Your task to perform on an android device: check data usage Image 0: 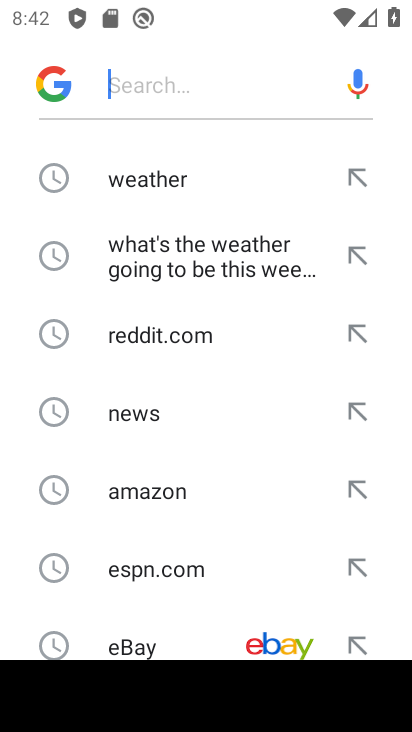
Step 0: press back button
Your task to perform on an android device: check data usage Image 1: 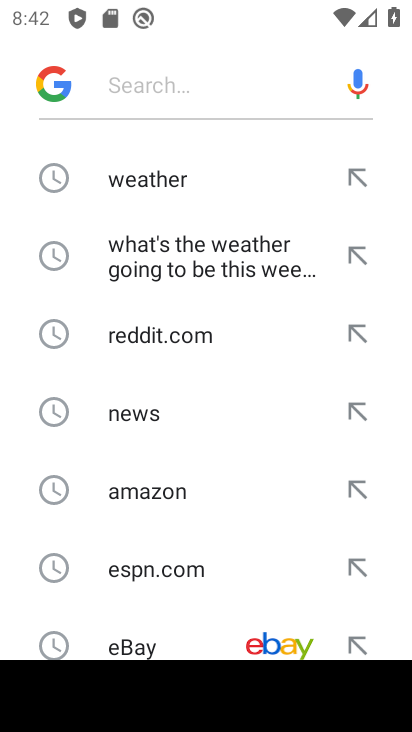
Step 1: press back button
Your task to perform on an android device: check data usage Image 2: 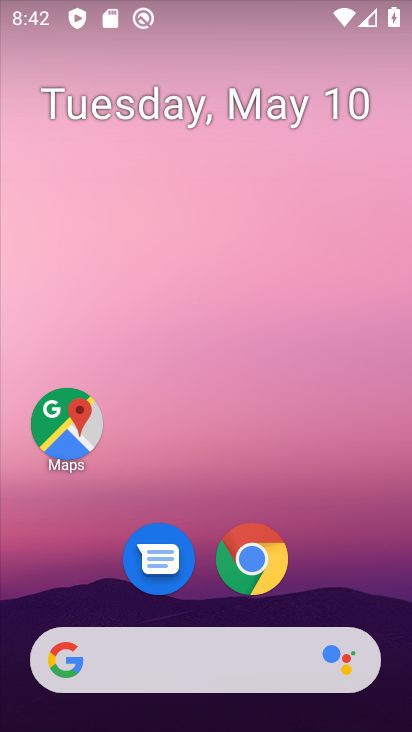
Step 2: drag from (370, 580) to (76, 3)
Your task to perform on an android device: check data usage Image 3: 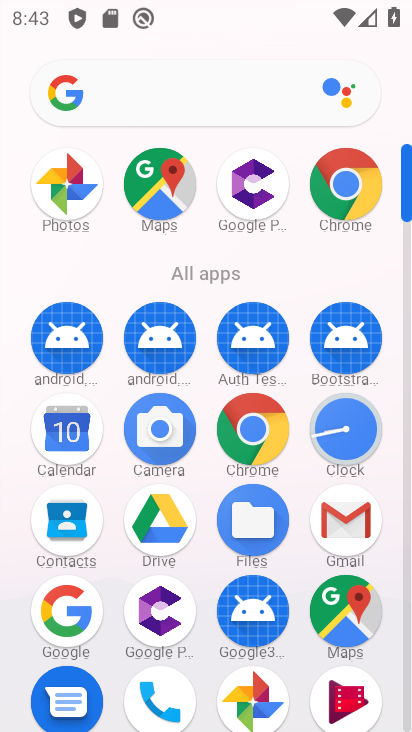
Step 3: click (348, 185)
Your task to perform on an android device: check data usage Image 4: 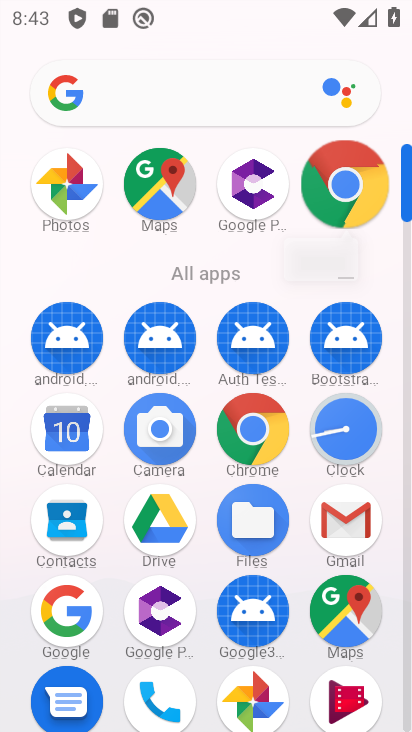
Step 4: click (348, 185)
Your task to perform on an android device: check data usage Image 5: 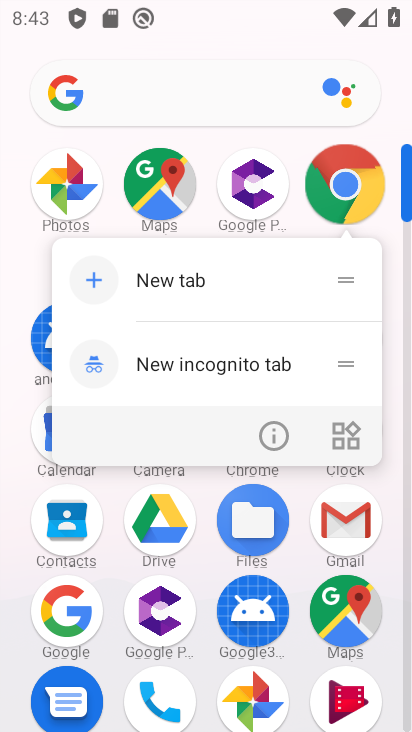
Step 5: click (348, 185)
Your task to perform on an android device: check data usage Image 6: 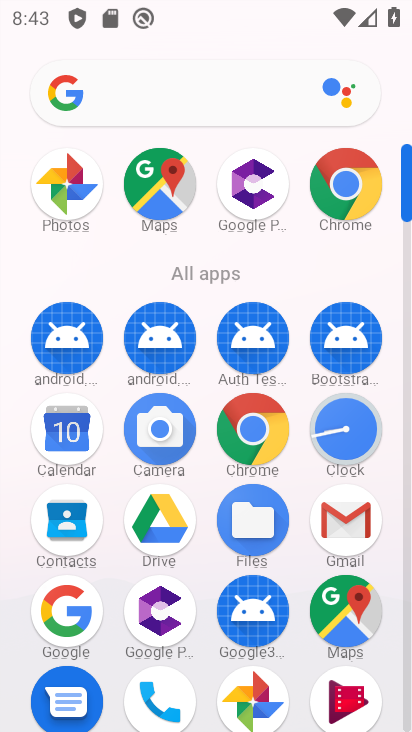
Step 6: click (348, 185)
Your task to perform on an android device: check data usage Image 7: 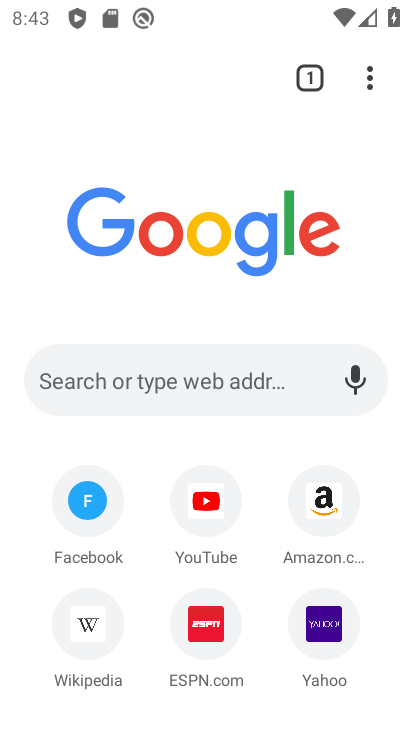
Step 7: press back button
Your task to perform on an android device: check data usage Image 8: 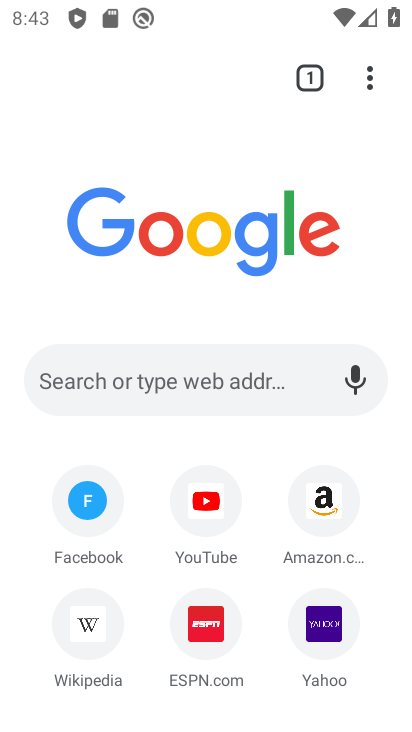
Step 8: press back button
Your task to perform on an android device: check data usage Image 9: 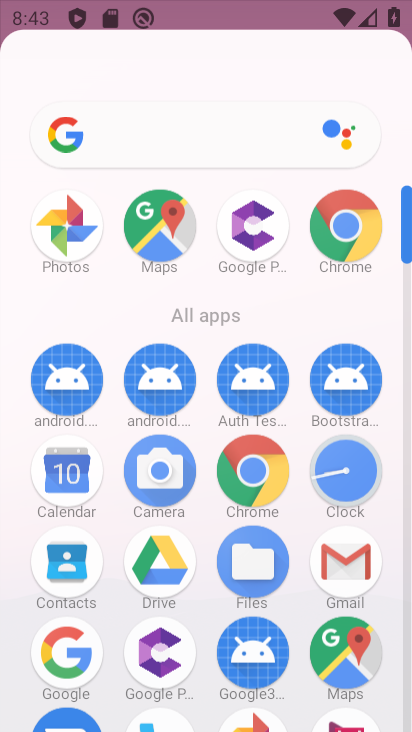
Step 9: press back button
Your task to perform on an android device: check data usage Image 10: 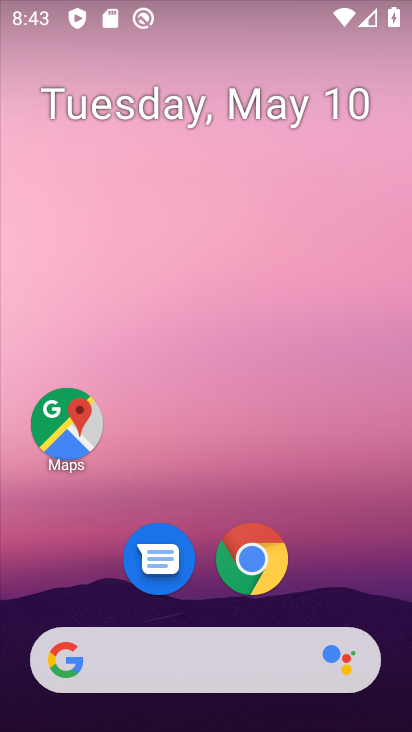
Step 10: drag from (358, 579) to (234, 3)
Your task to perform on an android device: check data usage Image 11: 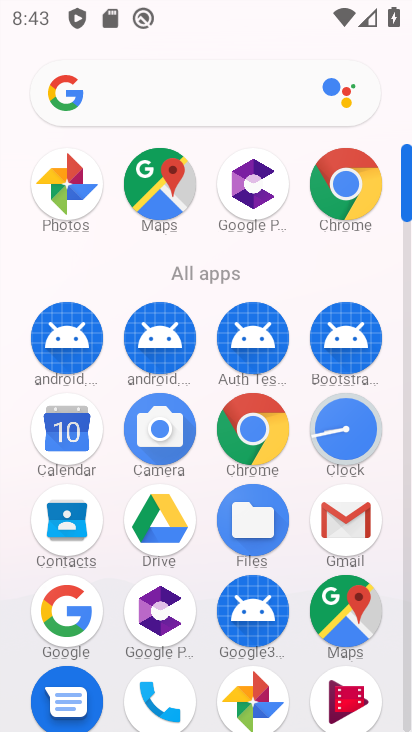
Step 11: click (338, 180)
Your task to perform on an android device: check data usage Image 12: 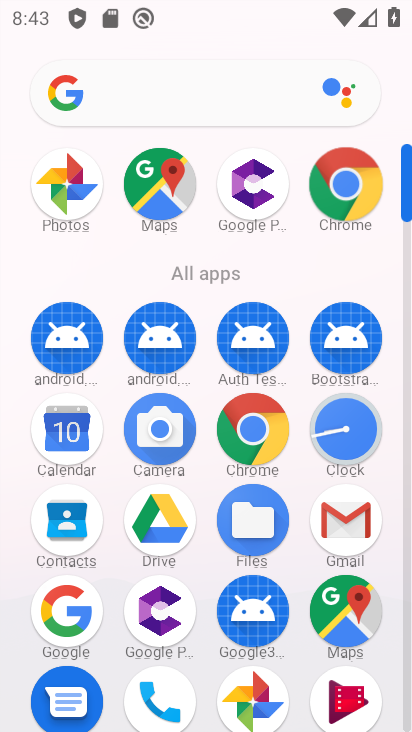
Step 12: click (338, 180)
Your task to perform on an android device: check data usage Image 13: 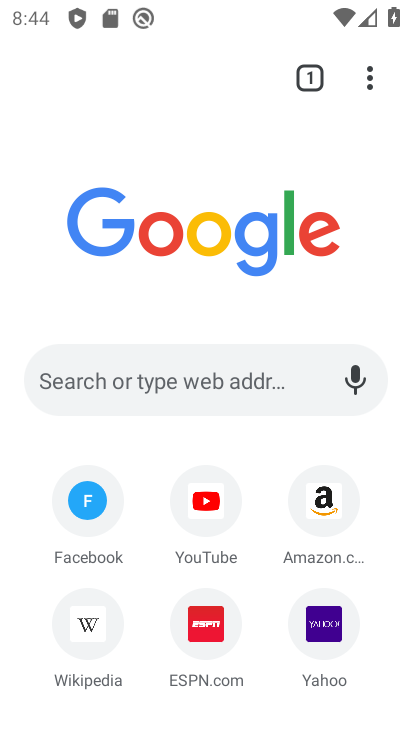
Step 13: press back button
Your task to perform on an android device: check data usage Image 14: 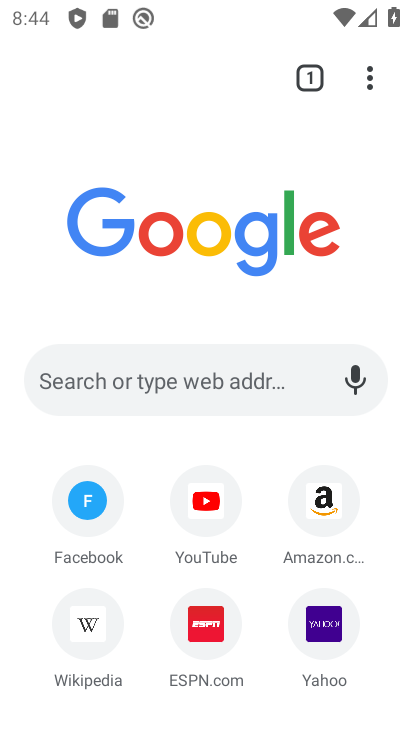
Step 14: press back button
Your task to perform on an android device: check data usage Image 15: 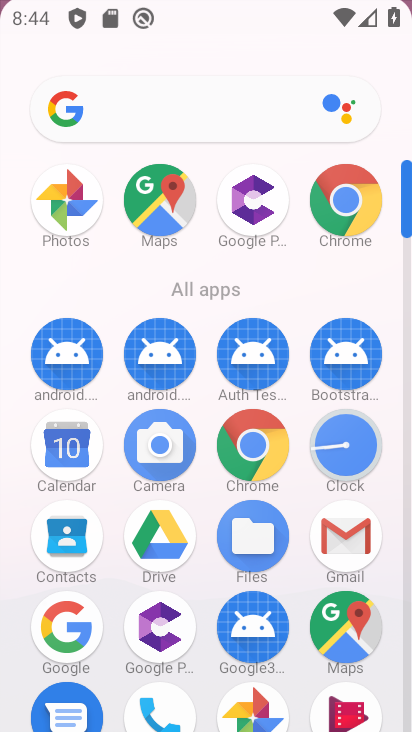
Step 15: press back button
Your task to perform on an android device: check data usage Image 16: 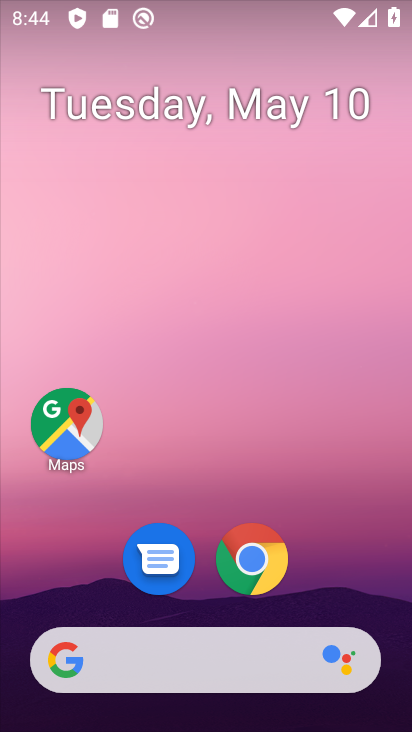
Step 16: click (260, 564)
Your task to perform on an android device: check data usage Image 17: 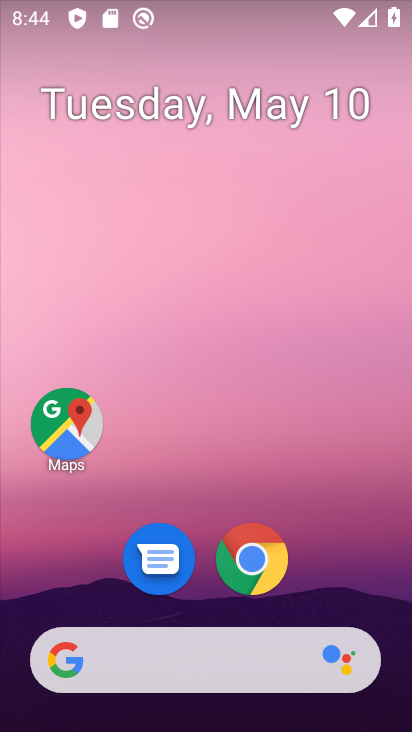
Step 17: click (261, 563)
Your task to perform on an android device: check data usage Image 18: 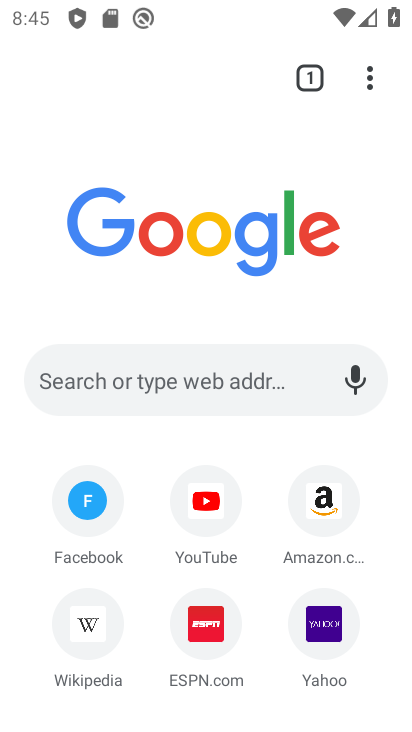
Step 18: press back button
Your task to perform on an android device: check data usage Image 19: 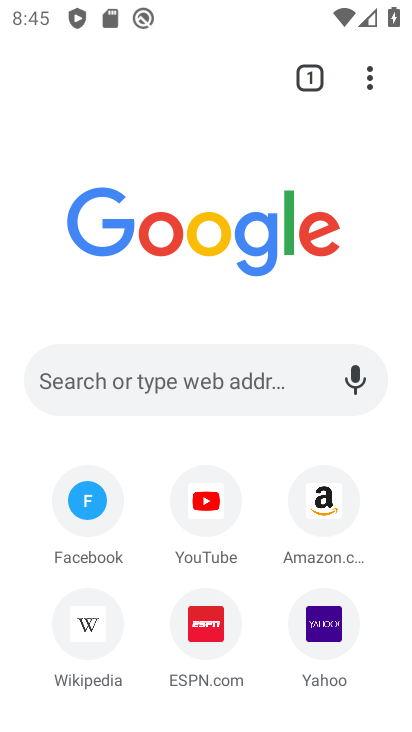
Step 19: press back button
Your task to perform on an android device: check data usage Image 20: 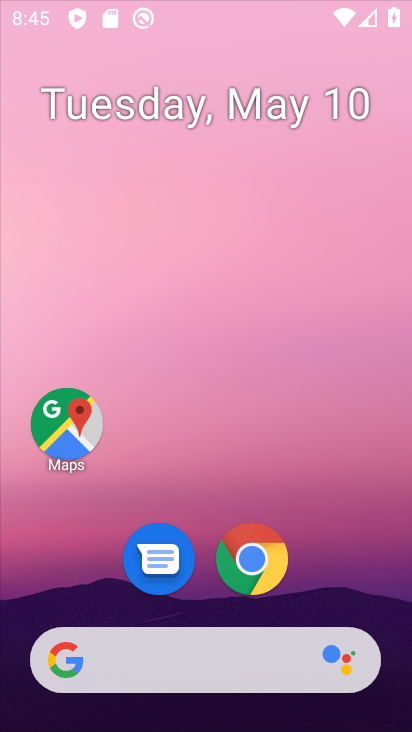
Step 20: press back button
Your task to perform on an android device: check data usage Image 21: 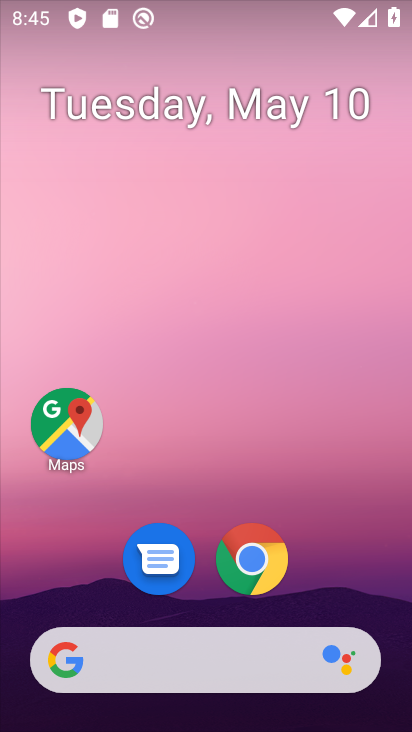
Step 21: drag from (310, 483) to (153, 1)
Your task to perform on an android device: check data usage Image 22: 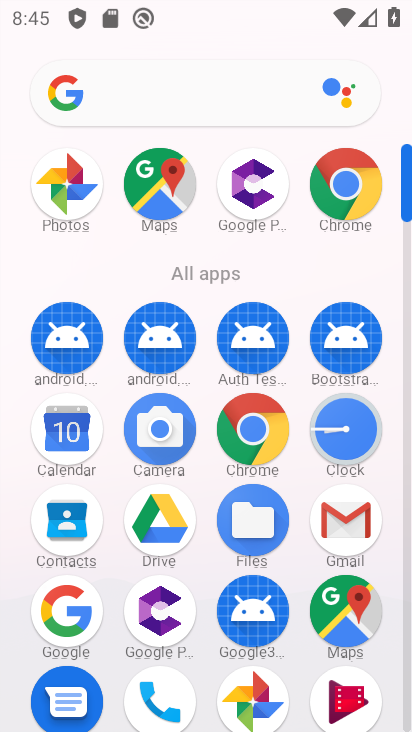
Step 22: drag from (209, 587) to (134, 117)
Your task to perform on an android device: check data usage Image 23: 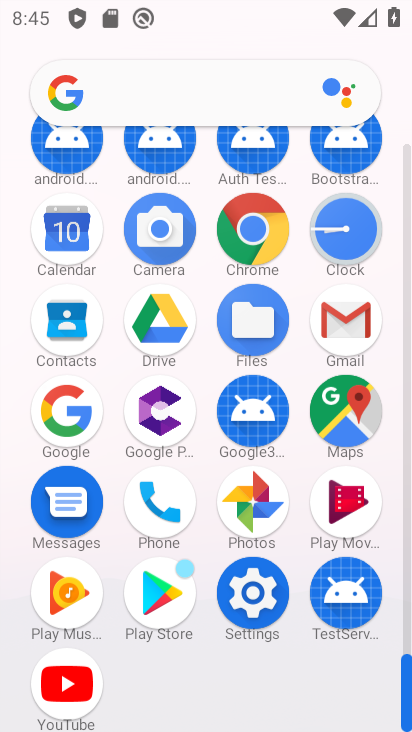
Step 23: drag from (215, 489) to (183, 131)
Your task to perform on an android device: check data usage Image 24: 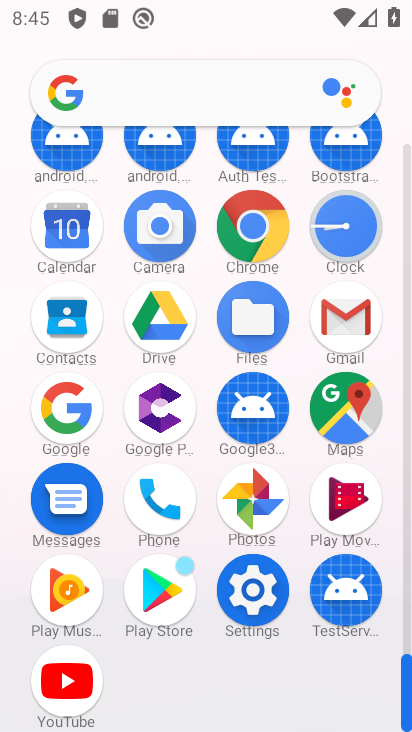
Step 24: click (249, 598)
Your task to perform on an android device: check data usage Image 25: 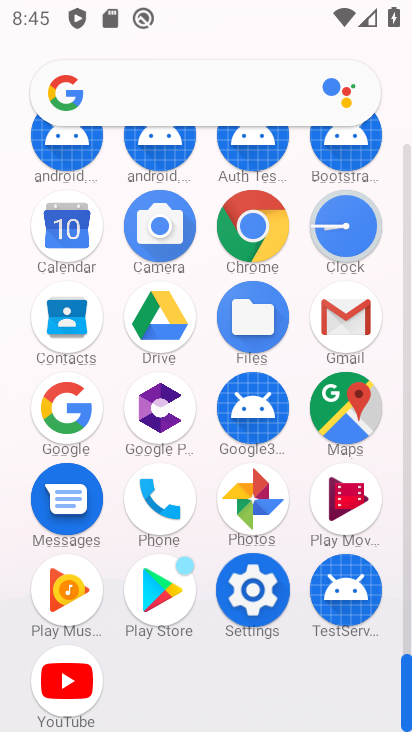
Step 25: click (251, 598)
Your task to perform on an android device: check data usage Image 26: 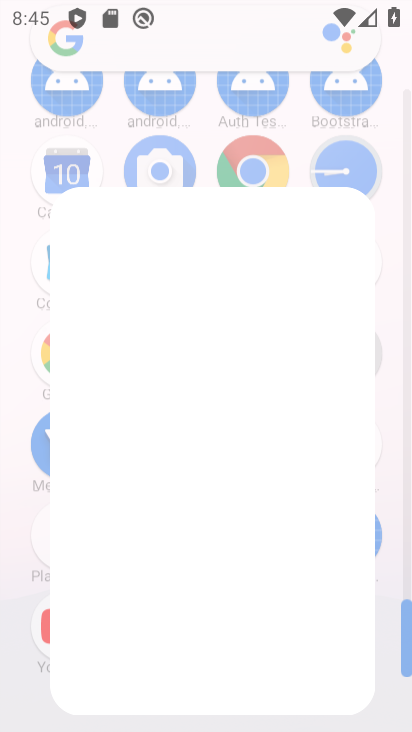
Step 26: click (252, 595)
Your task to perform on an android device: check data usage Image 27: 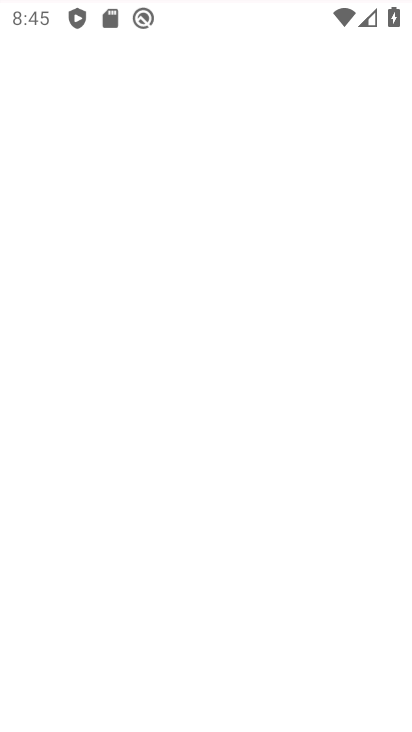
Step 27: click (252, 595)
Your task to perform on an android device: check data usage Image 28: 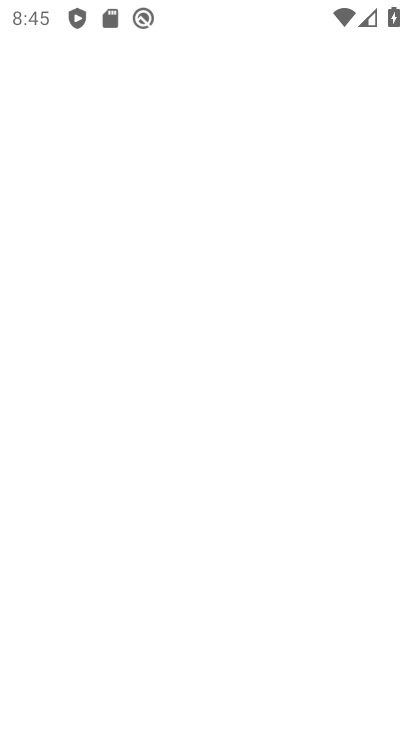
Step 28: click (253, 594)
Your task to perform on an android device: check data usage Image 29: 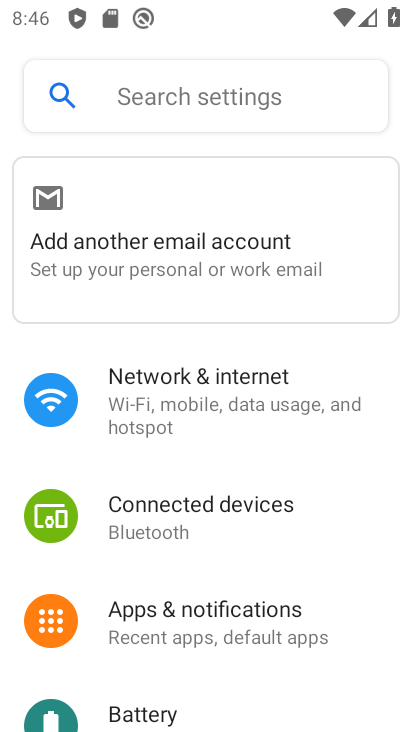
Step 29: drag from (206, 607) to (90, 250)
Your task to perform on an android device: check data usage Image 30: 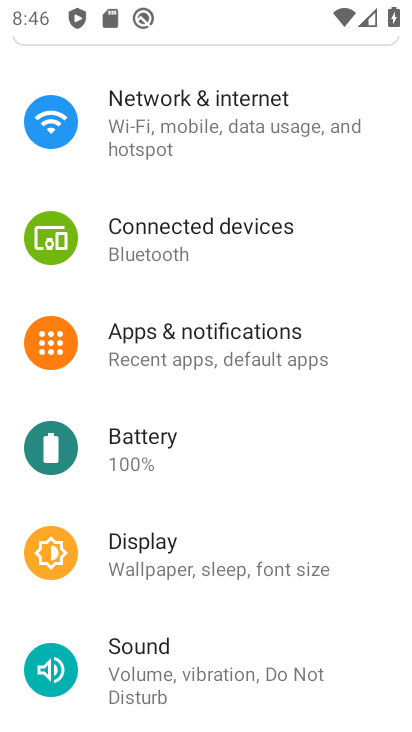
Step 30: drag from (195, 499) to (106, 180)
Your task to perform on an android device: check data usage Image 31: 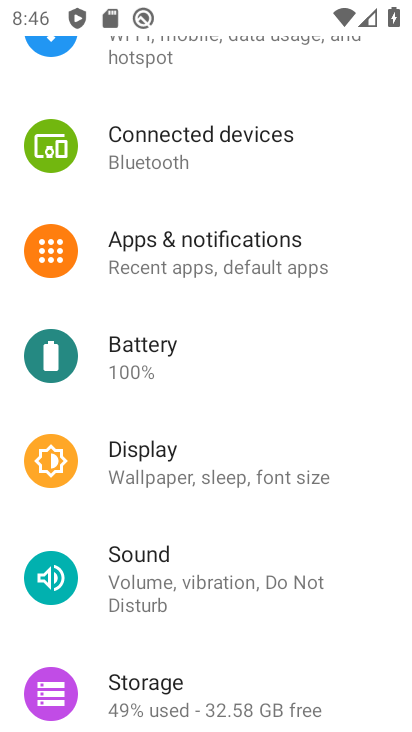
Step 31: drag from (162, 371) to (199, 522)
Your task to perform on an android device: check data usage Image 32: 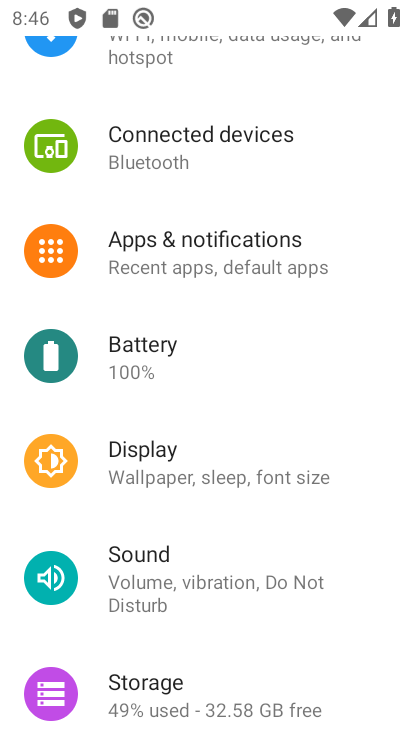
Step 32: drag from (167, 265) to (186, 496)
Your task to perform on an android device: check data usage Image 33: 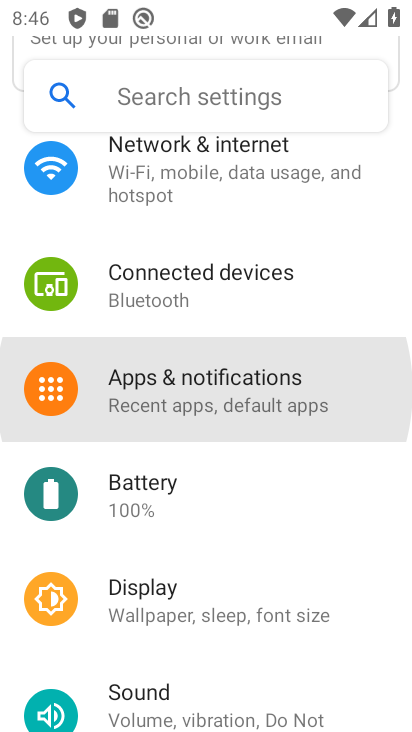
Step 33: drag from (173, 259) to (201, 395)
Your task to perform on an android device: check data usage Image 34: 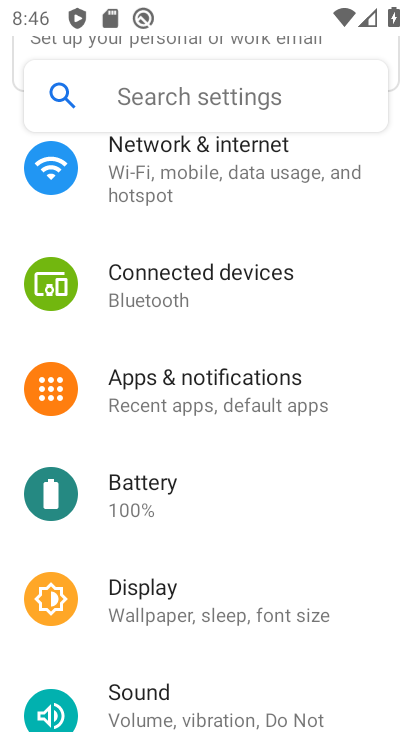
Step 34: drag from (166, 571) to (88, 221)
Your task to perform on an android device: check data usage Image 35: 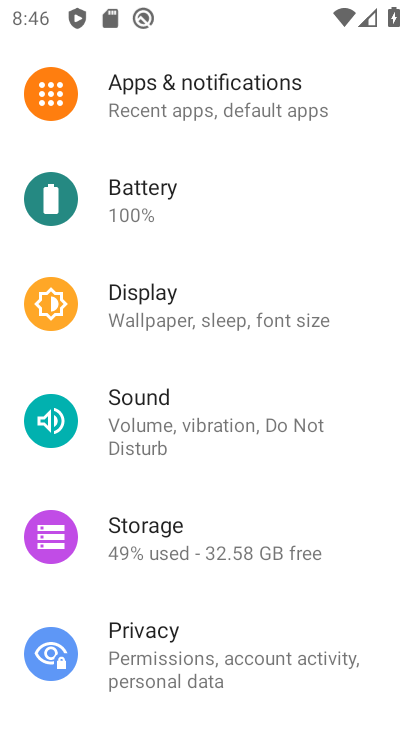
Step 35: drag from (188, 340) to (252, 609)
Your task to perform on an android device: check data usage Image 36: 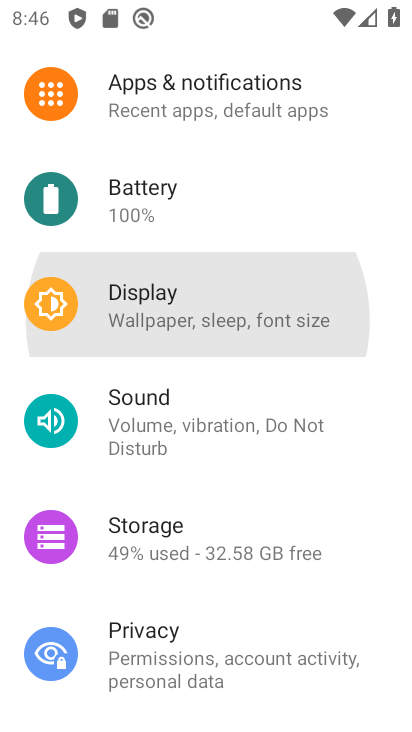
Step 36: drag from (127, 167) to (227, 552)
Your task to perform on an android device: check data usage Image 37: 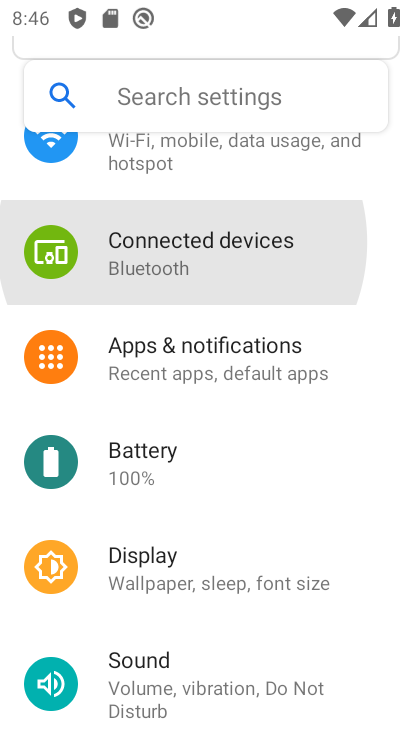
Step 37: drag from (268, 362) to (300, 527)
Your task to perform on an android device: check data usage Image 38: 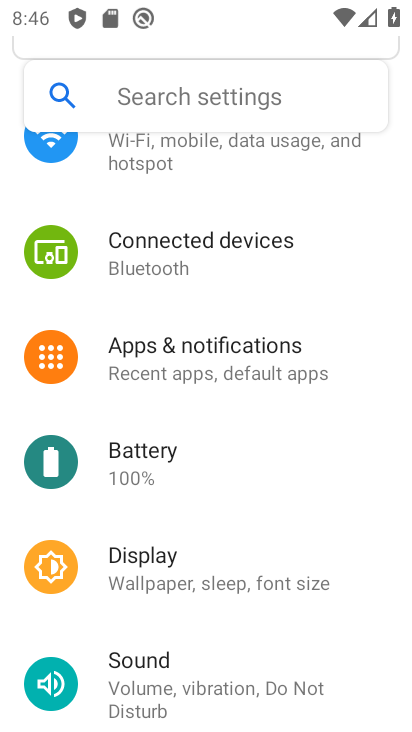
Step 38: drag from (169, 255) to (261, 488)
Your task to perform on an android device: check data usage Image 39: 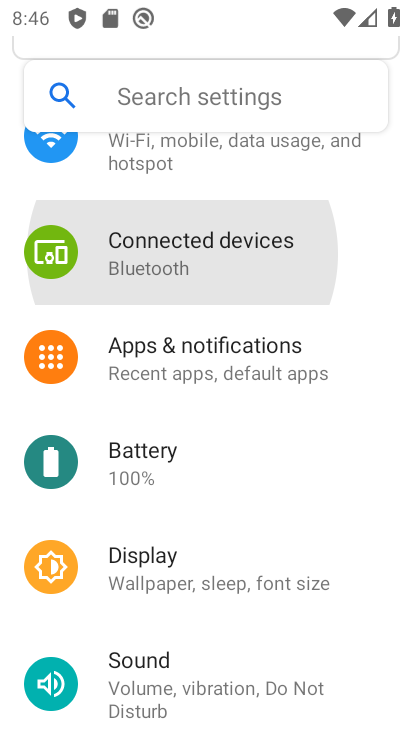
Step 39: drag from (203, 260) to (258, 493)
Your task to perform on an android device: check data usage Image 40: 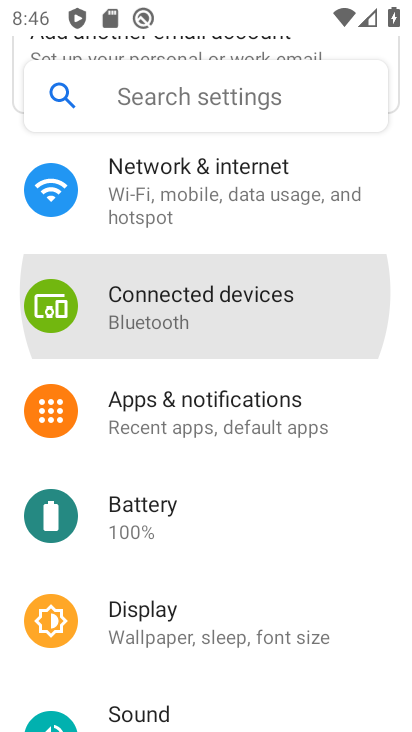
Step 40: drag from (122, 223) to (248, 630)
Your task to perform on an android device: check data usage Image 41: 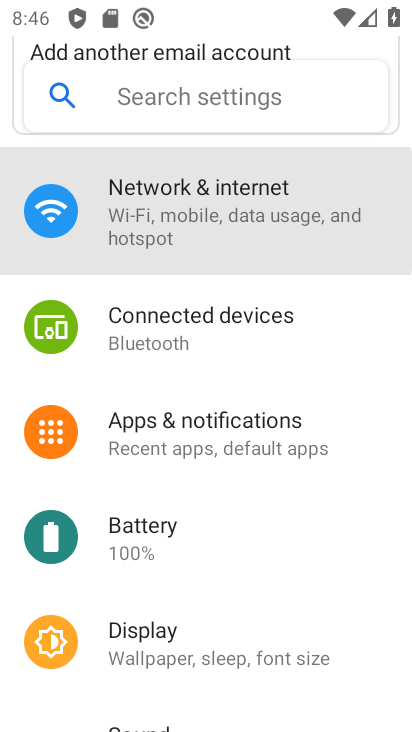
Step 41: drag from (239, 470) to (297, 714)
Your task to perform on an android device: check data usage Image 42: 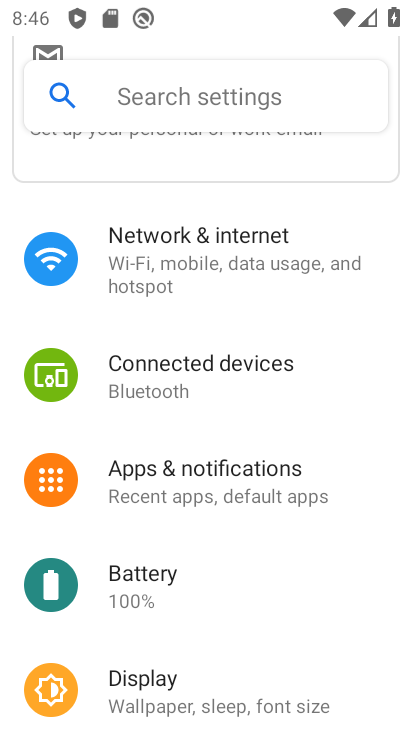
Step 42: click (198, 258)
Your task to perform on an android device: check data usage Image 43: 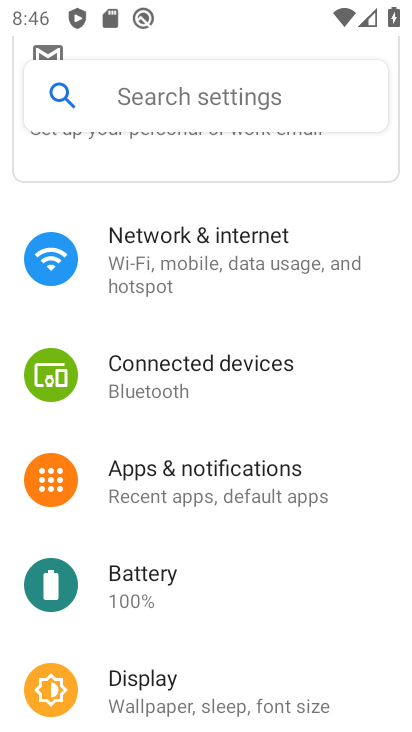
Step 43: click (203, 255)
Your task to perform on an android device: check data usage Image 44: 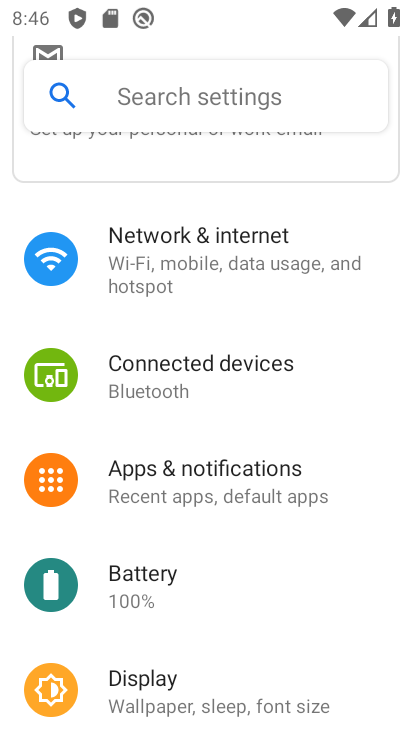
Step 44: click (206, 253)
Your task to perform on an android device: check data usage Image 45: 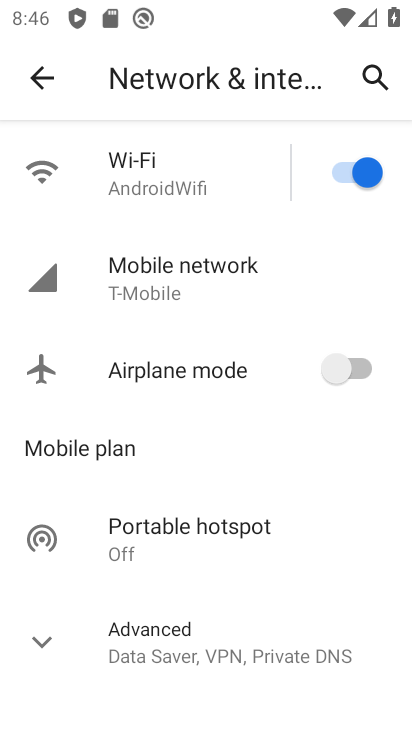
Step 45: drag from (232, 546) to (132, 185)
Your task to perform on an android device: check data usage Image 46: 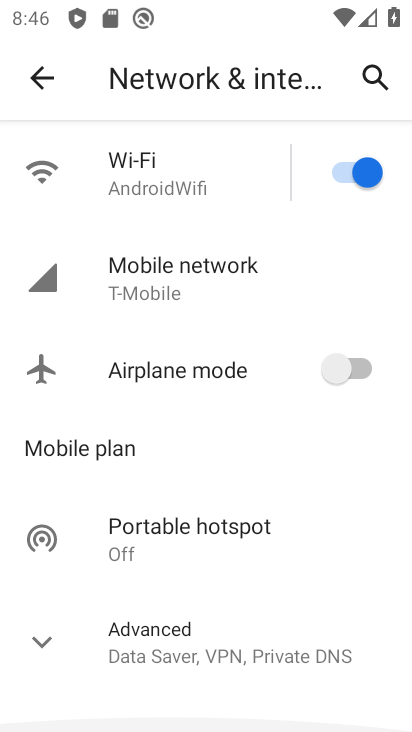
Step 46: drag from (162, 517) to (106, 168)
Your task to perform on an android device: check data usage Image 47: 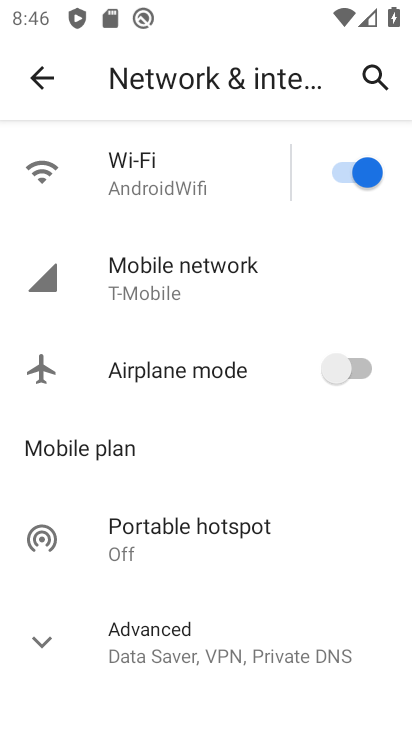
Step 47: drag from (222, 586) to (43, 78)
Your task to perform on an android device: check data usage Image 48: 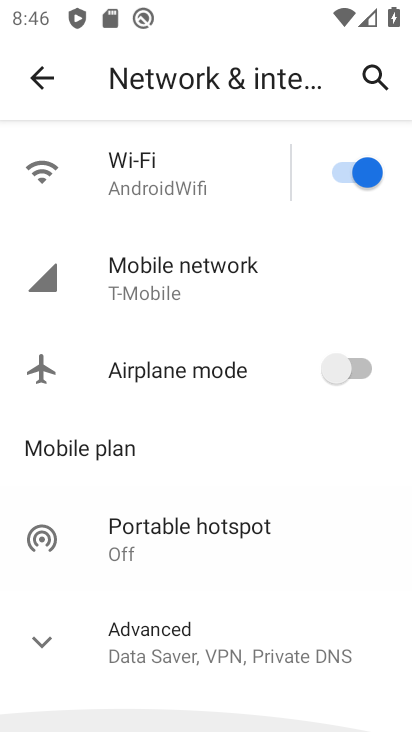
Step 48: drag from (235, 524) to (176, 256)
Your task to perform on an android device: check data usage Image 49: 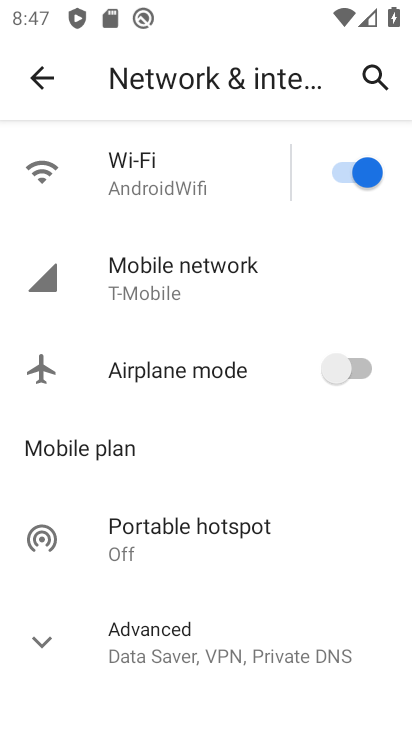
Step 49: click (32, 63)
Your task to perform on an android device: check data usage Image 50: 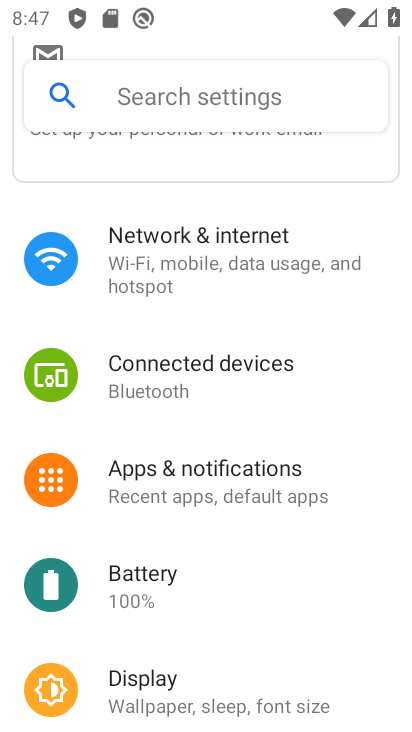
Step 50: task complete